Your task to perform on an android device: Search for seafood restaurants on Google Maps Image 0: 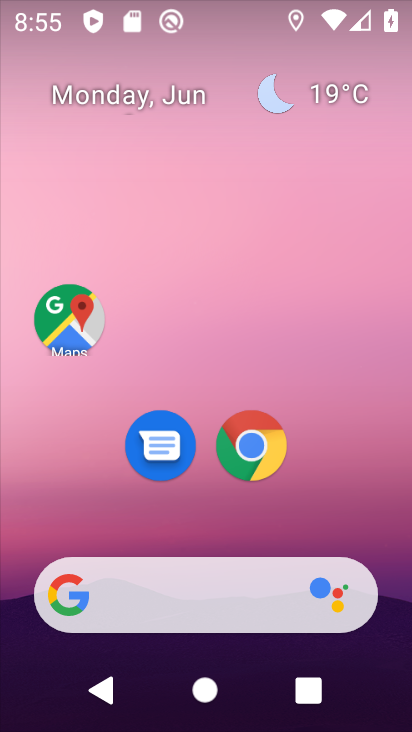
Step 0: press home button
Your task to perform on an android device: Search for seafood restaurants on Google Maps Image 1: 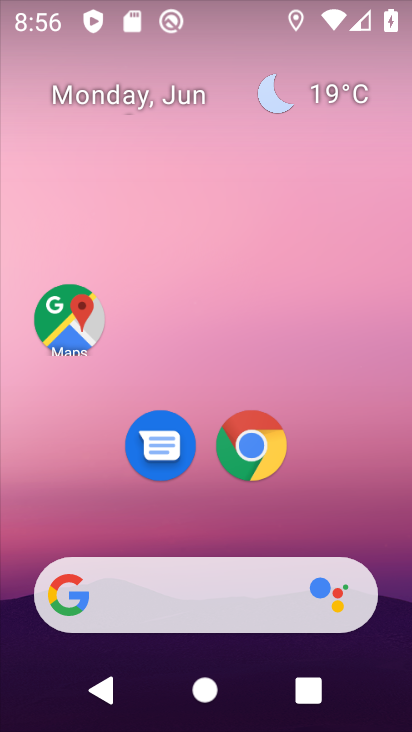
Step 1: click (66, 311)
Your task to perform on an android device: Search for seafood restaurants on Google Maps Image 2: 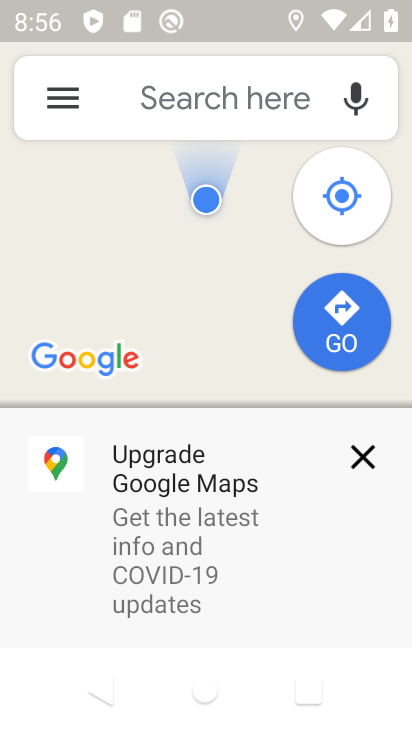
Step 2: click (361, 465)
Your task to perform on an android device: Search for seafood restaurants on Google Maps Image 3: 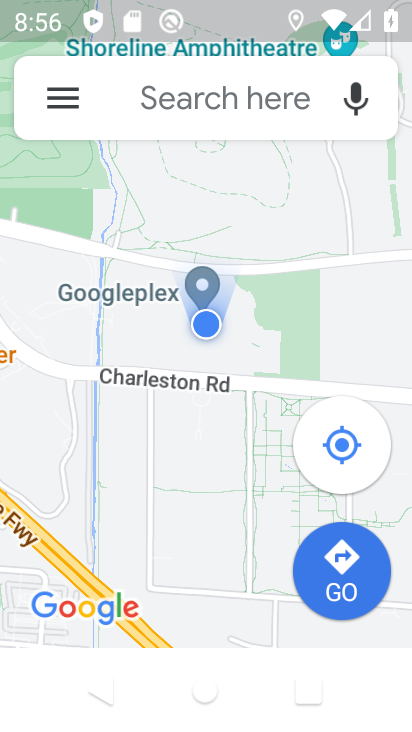
Step 3: click (159, 97)
Your task to perform on an android device: Search for seafood restaurants on Google Maps Image 4: 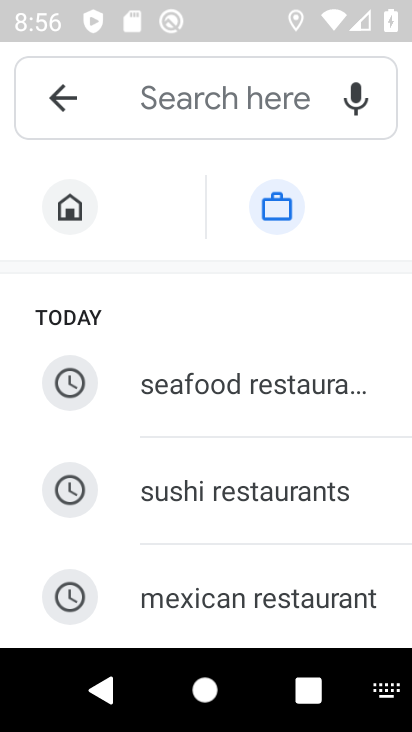
Step 4: click (181, 405)
Your task to perform on an android device: Search for seafood restaurants on Google Maps Image 5: 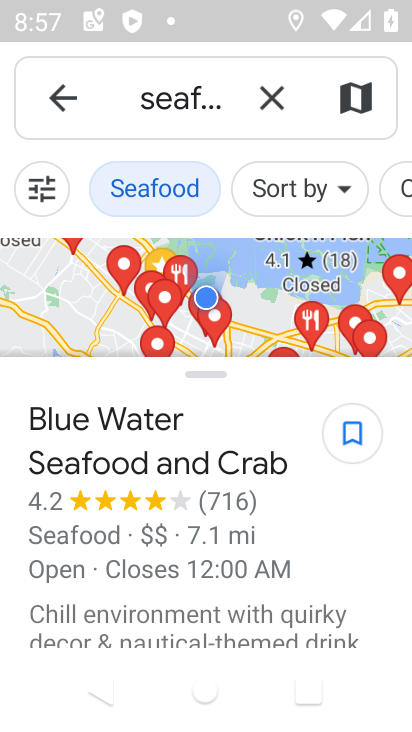
Step 5: task complete